Your task to perform on an android device: Check the news Image 0: 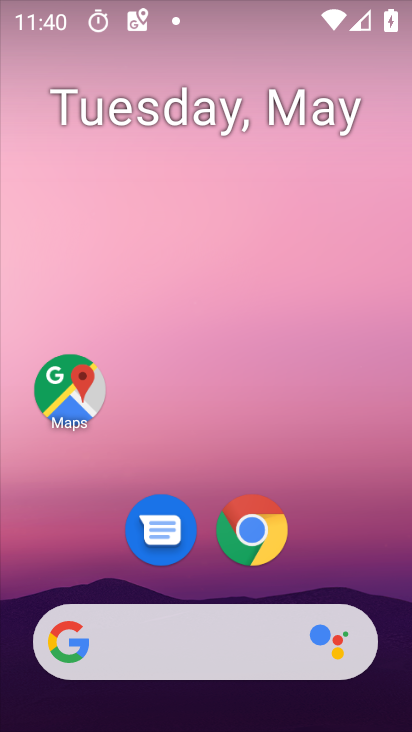
Step 0: drag from (317, 617) to (321, 11)
Your task to perform on an android device: Check the news Image 1: 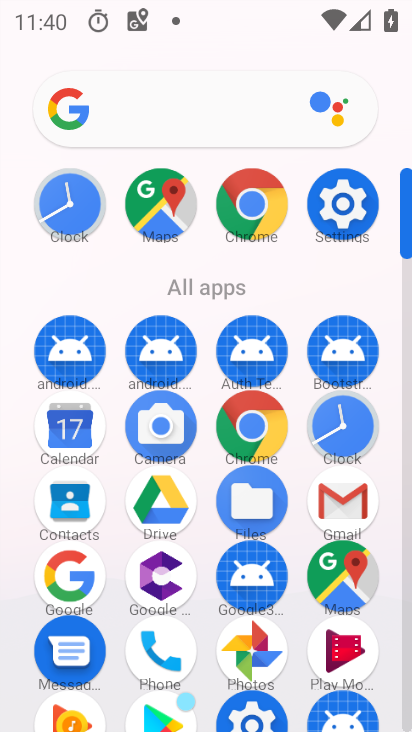
Step 1: click (238, 424)
Your task to perform on an android device: Check the news Image 2: 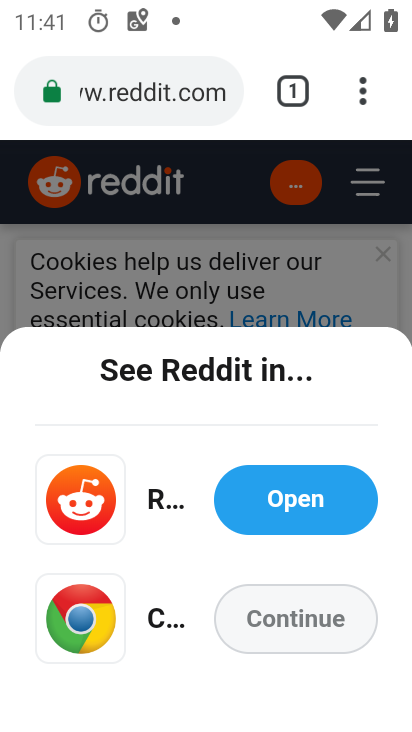
Step 2: click (210, 99)
Your task to perform on an android device: Check the news Image 3: 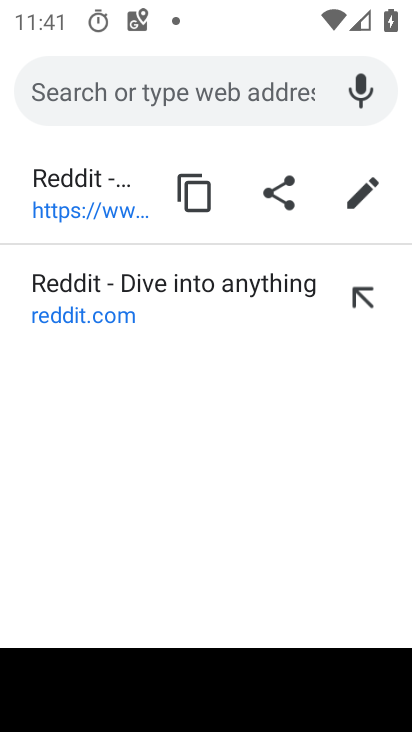
Step 3: type "check the news"
Your task to perform on an android device: Check the news Image 4: 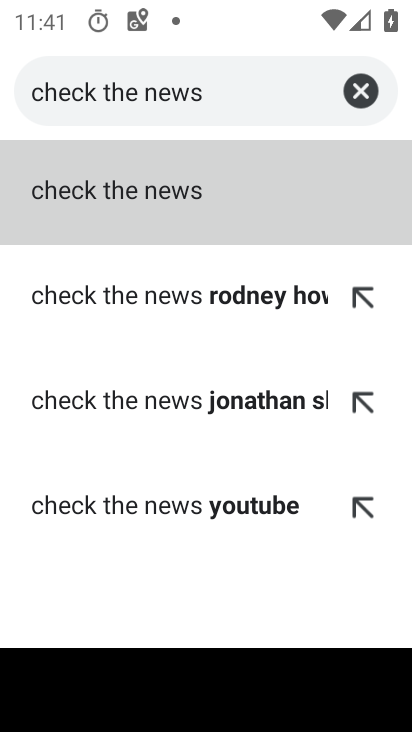
Step 4: click (145, 180)
Your task to perform on an android device: Check the news Image 5: 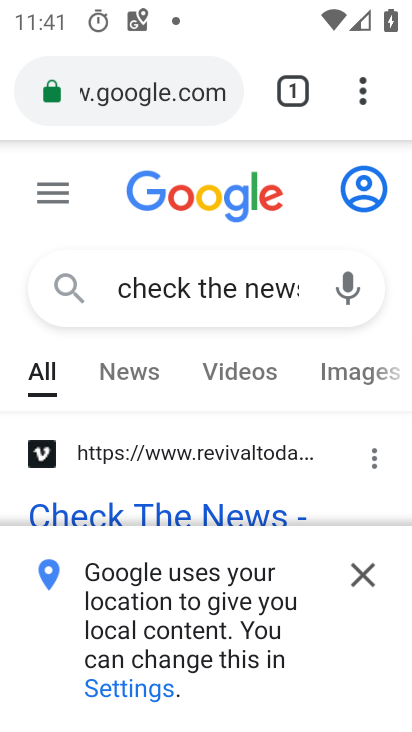
Step 5: task complete